Your task to perform on an android device: Open Android settings Image 0: 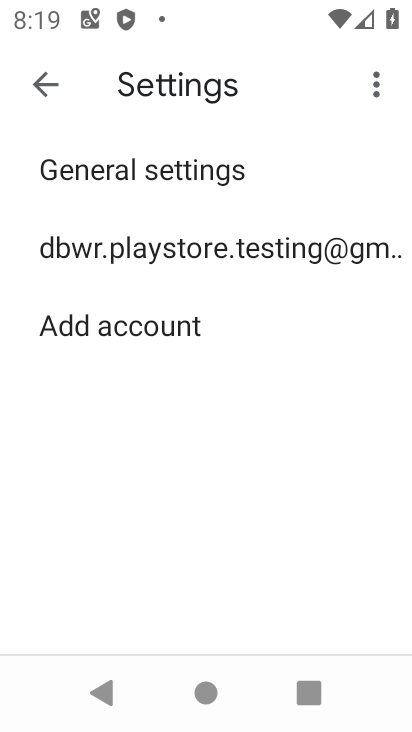
Step 0: press home button
Your task to perform on an android device: Open Android settings Image 1: 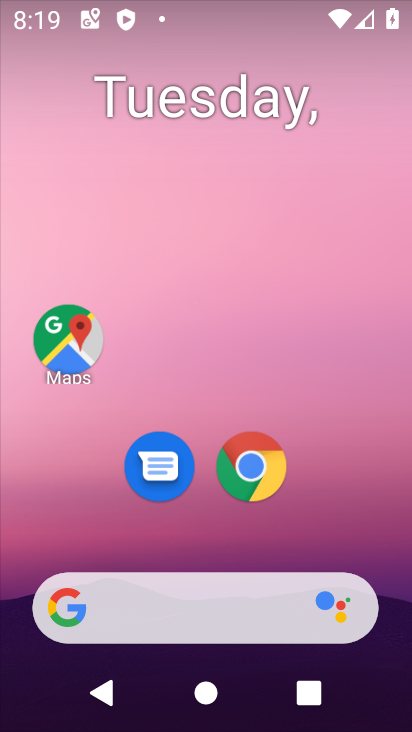
Step 1: drag from (356, 547) to (296, 60)
Your task to perform on an android device: Open Android settings Image 2: 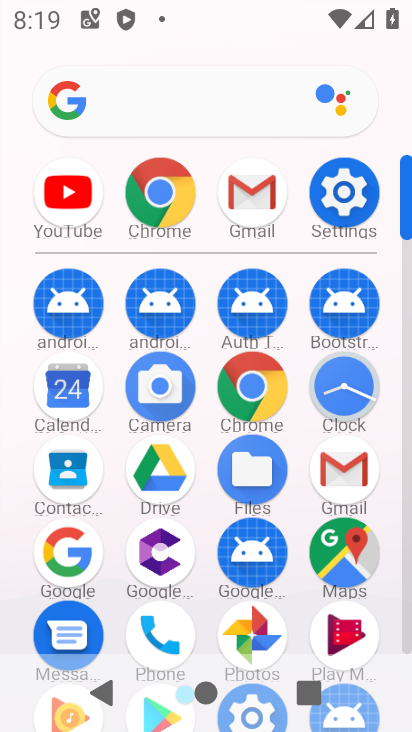
Step 2: click (352, 219)
Your task to perform on an android device: Open Android settings Image 3: 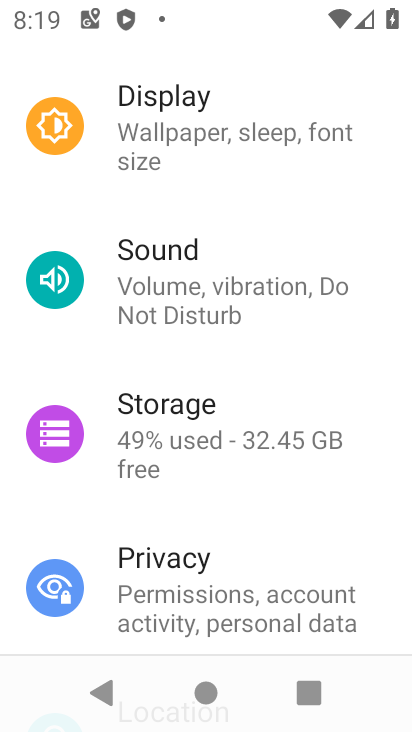
Step 3: task complete